Your task to perform on an android device: uninstall "Speedtest by Ookla" Image 0: 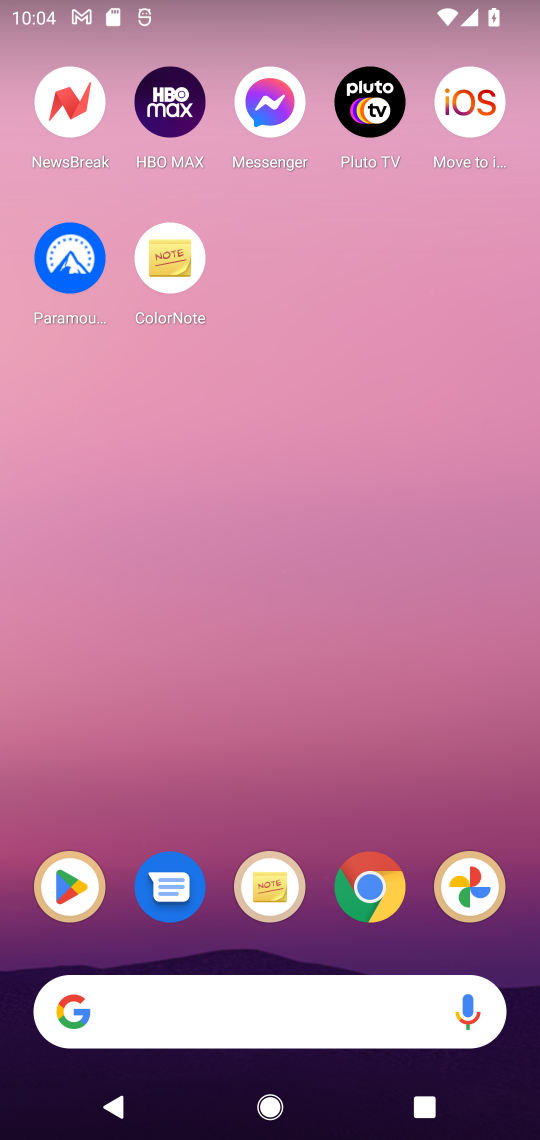
Step 0: click (69, 891)
Your task to perform on an android device: uninstall "Speedtest by Ookla" Image 1: 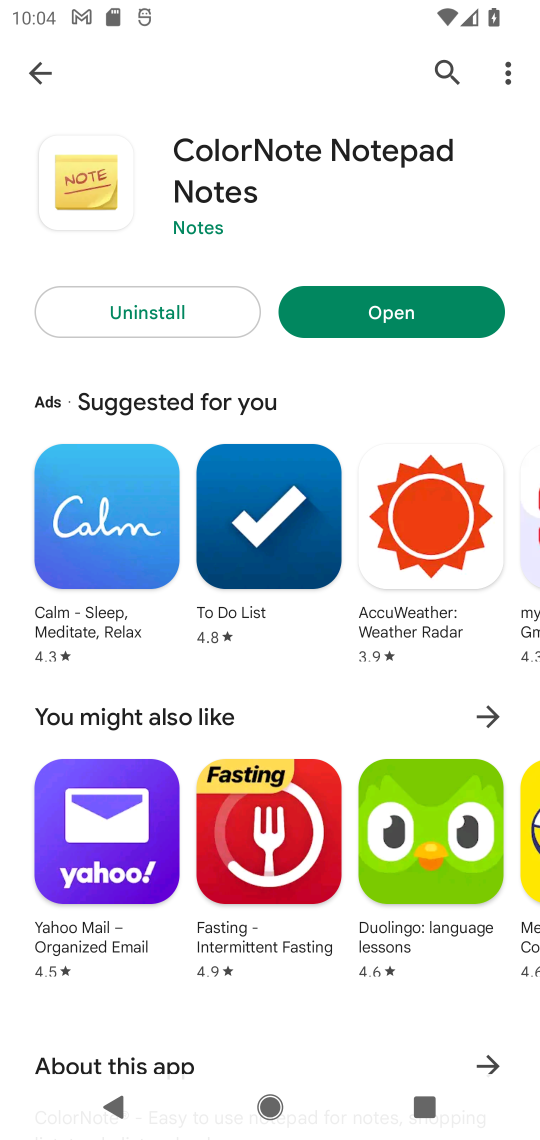
Step 1: click (457, 76)
Your task to perform on an android device: uninstall "Speedtest by Ookla" Image 2: 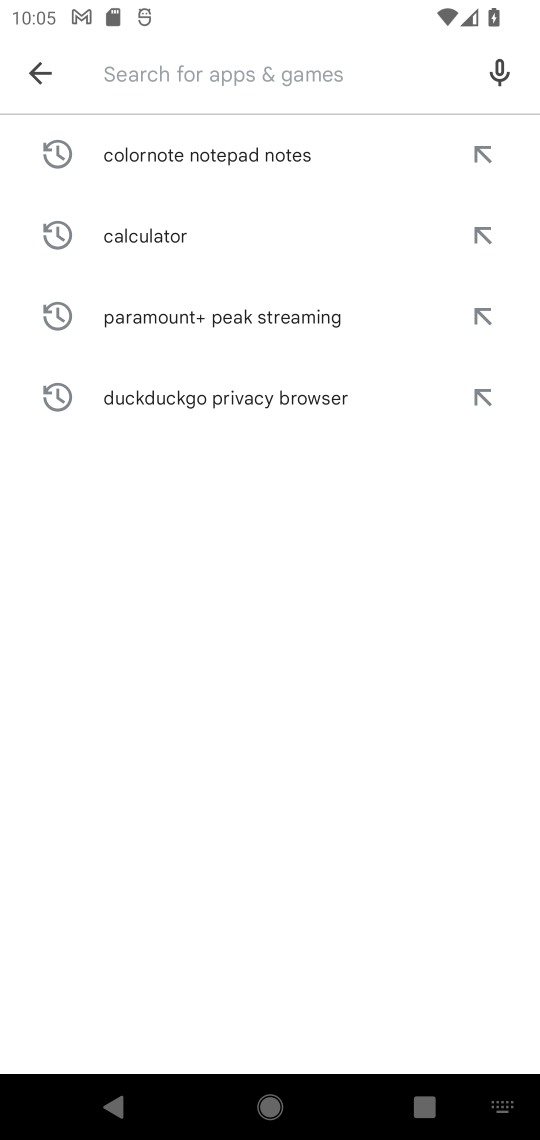
Step 2: type "speedtest by ookla"
Your task to perform on an android device: uninstall "Speedtest by Ookla" Image 3: 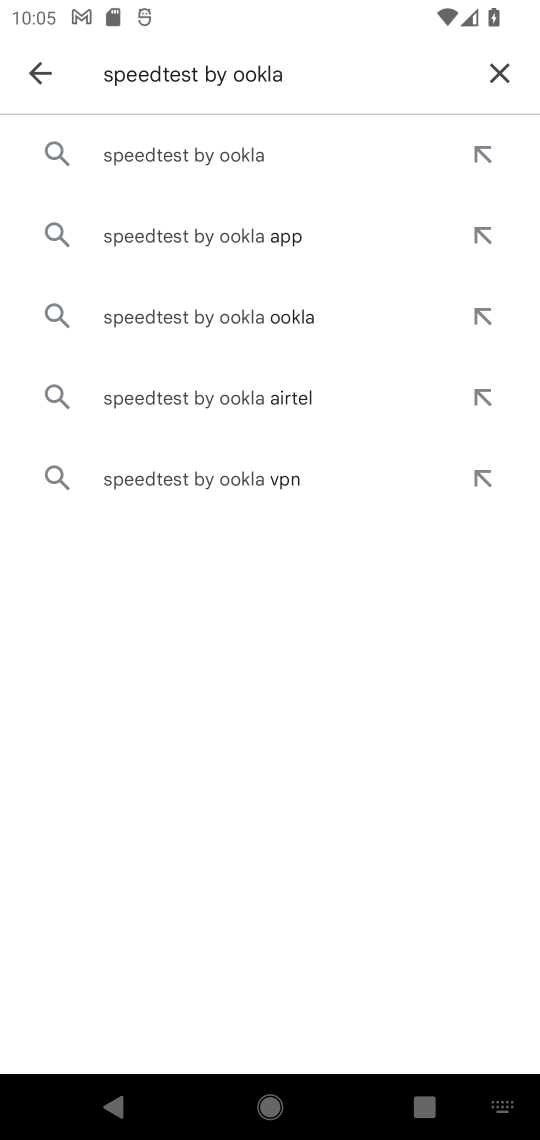
Step 3: click (379, 159)
Your task to perform on an android device: uninstall "Speedtest by Ookla" Image 4: 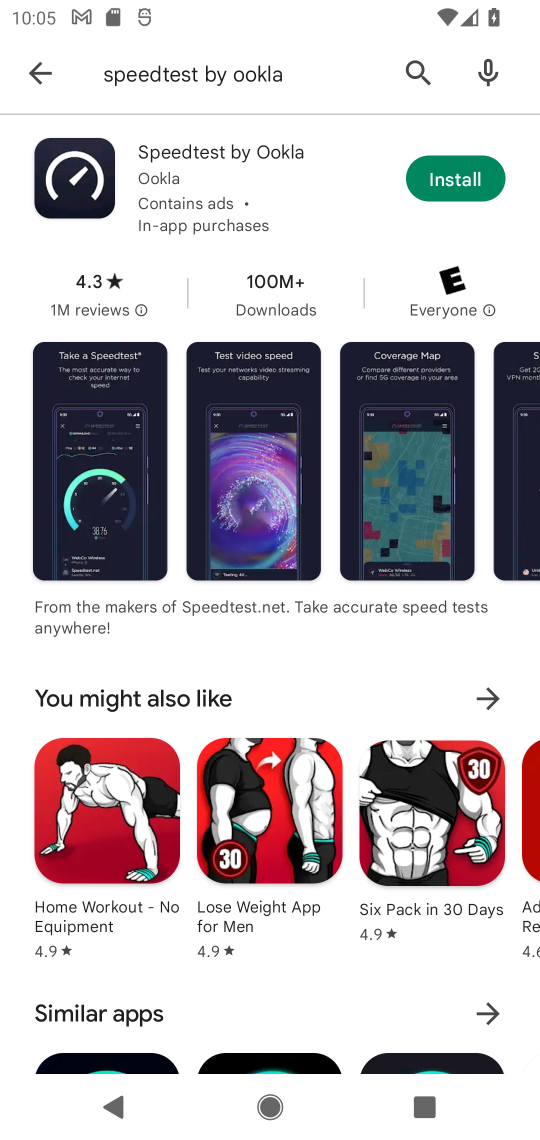
Step 4: click (193, 137)
Your task to perform on an android device: uninstall "Speedtest by Ookla" Image 5: 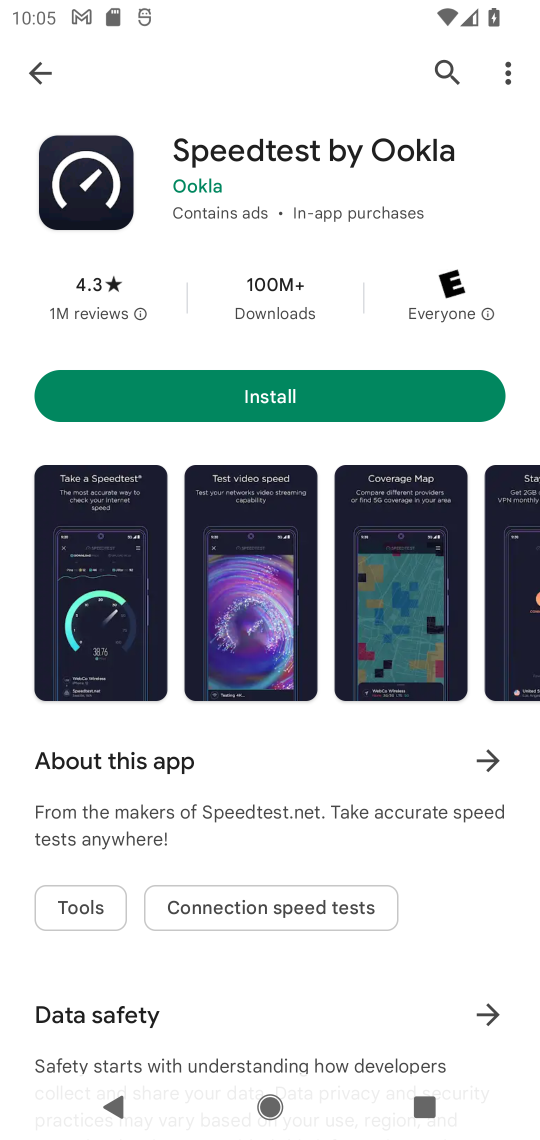
Step 5: task complete